Your task to perform on an android device: Search for seafood restaurants on Google Maps Image 0: 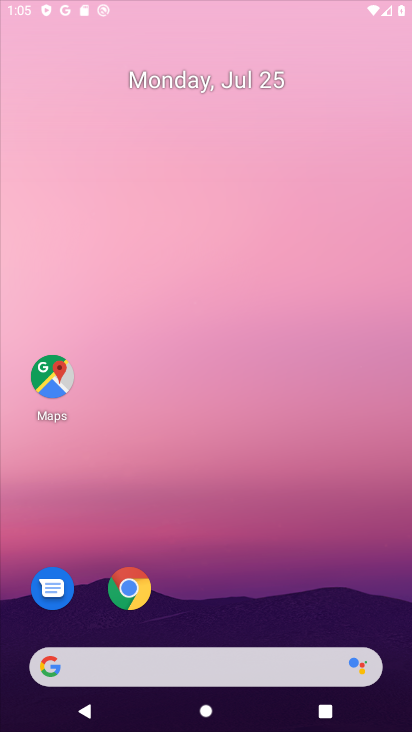
Step 0: click (188, 257)
Your task to perform on an android device: Search for seafood restaurants on Google Maps Image 1: 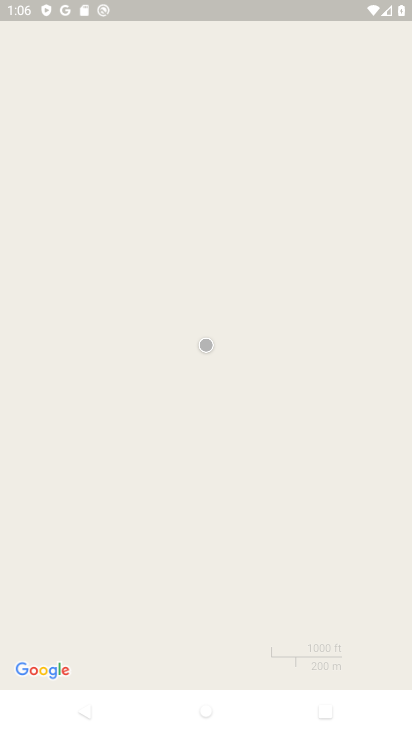
Step 1: press home button
Your task to perform on an android device: Search for seafood restaurants on Google Maps Image 2: 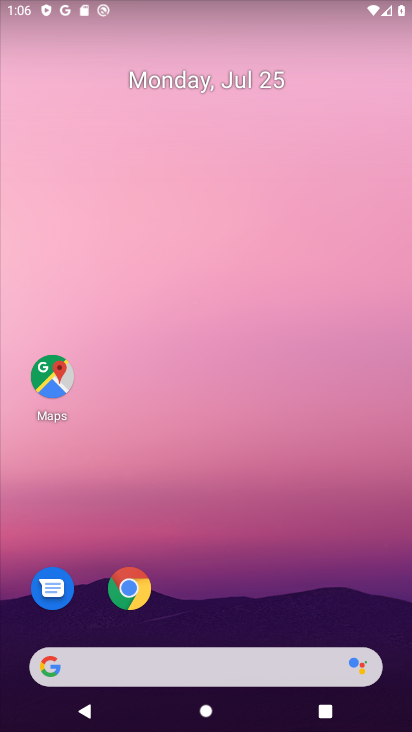
Step 2: click (42, 380)
Your task to perform on an android device: Search for seafood restaurants on Google Maps Image 3: 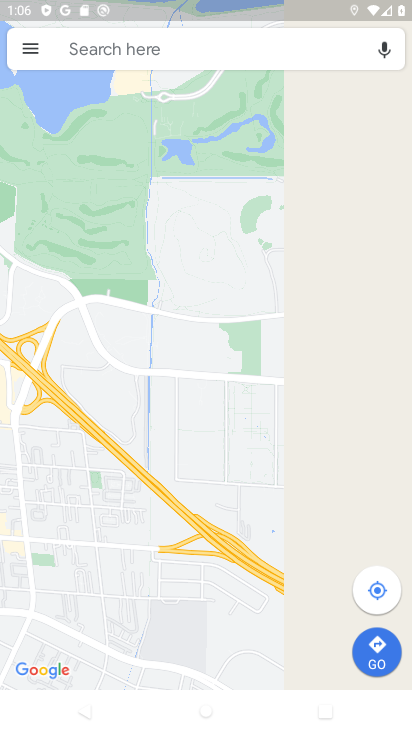
Step 3: click (134, 50)
Your task to perform on an android device: Search for seafood restaurants on Google Maps Image 4: 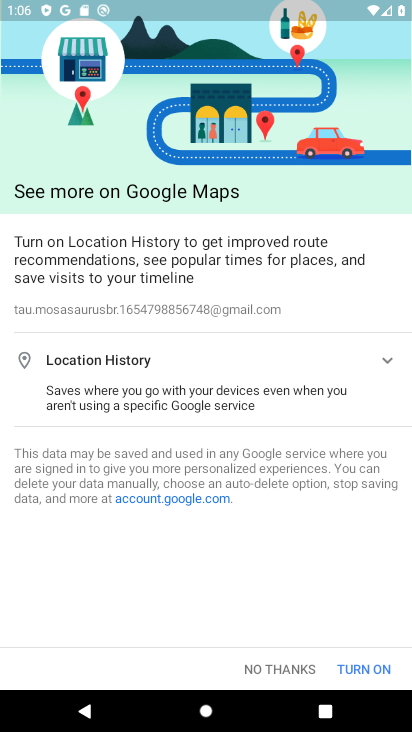
Step 4: click (282, 664)
Your task to perform on an android device: Search for seafood restaurants on Google Maps Image 5: 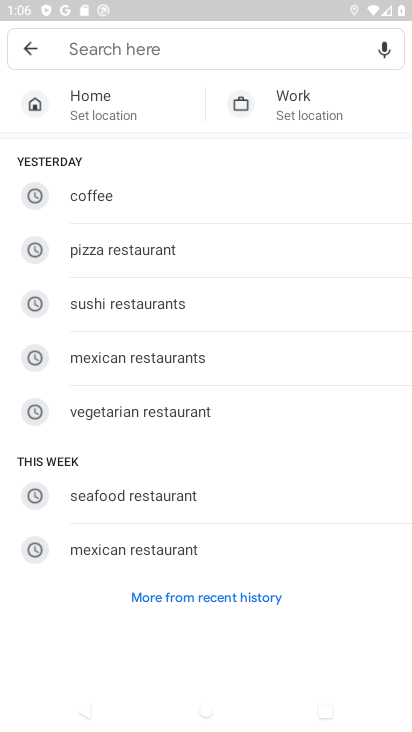
Step 5: click (84, 497)
Your task to perform on an android device: Search for seafood restaurants on Google Maps Image 6: 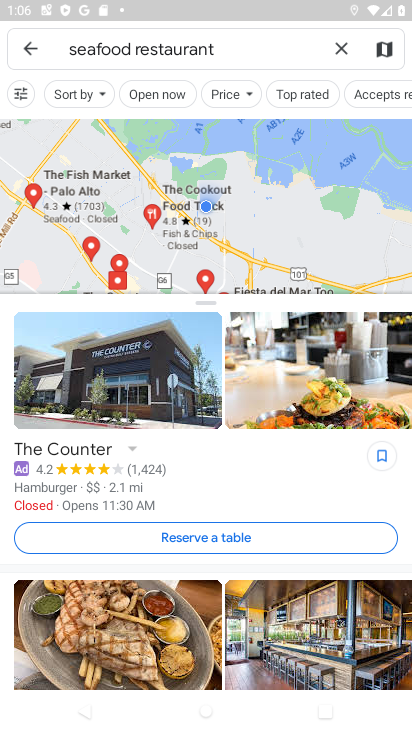
Step 6: task complete